Your task to perform on an android device: Search for sushi restaurants on Maps Image 0: 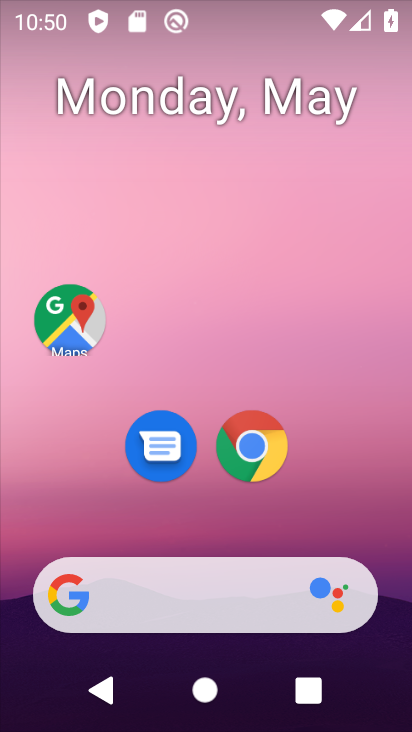
Step 0: drag from (349, 467) to (309, 3)
Your task to perform on an android device: Search for sushi restaurants on Maps Image 1: 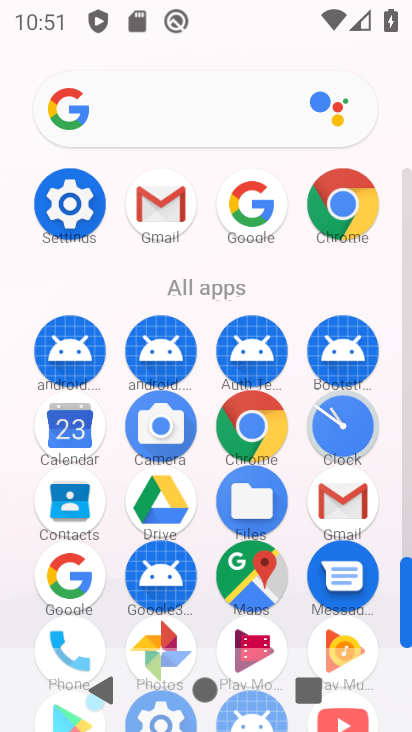
Step 1: click (242, 595)
Your task to perform on an android device: Search for sushi restaurants on Maps Image 2: 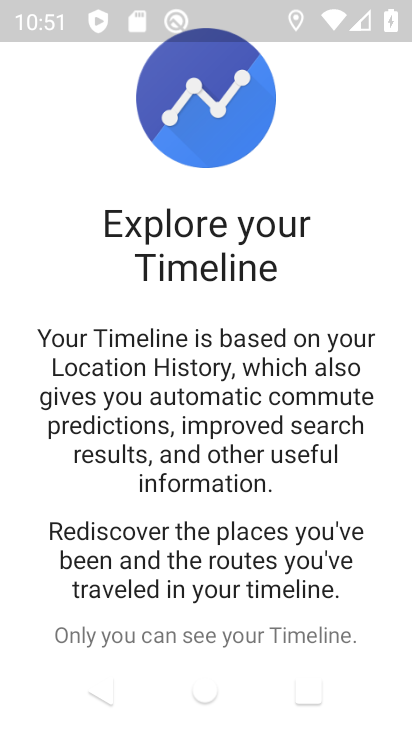
Step 2: drag from (302, 626) to (226, 165)
Your task to perform on an android device: Search for sushi restaurants on Maps Image 3: 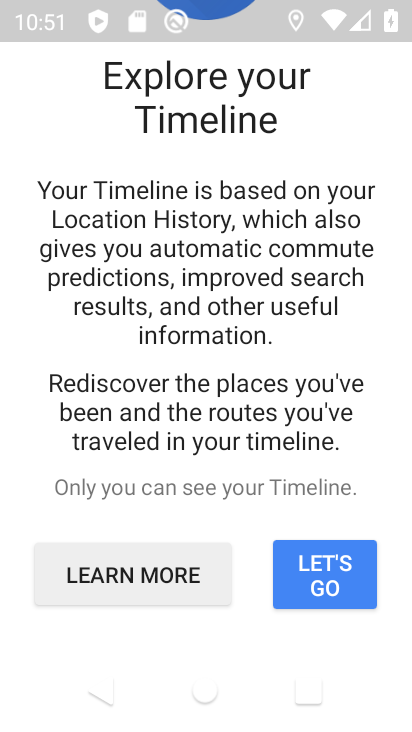
Step 3: drag from (229, 553) to (169, 164)
Your task to perform on an android device: Search for sushi restaurants on Maps Image 4: 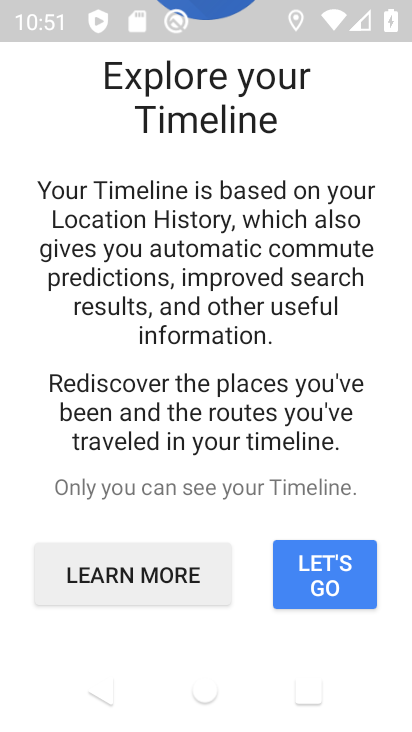
Step 4: drag from (244, 637) to (195, 216)
Your task to perform on an android device: Search for sushi restaurants on Maps Image 5: 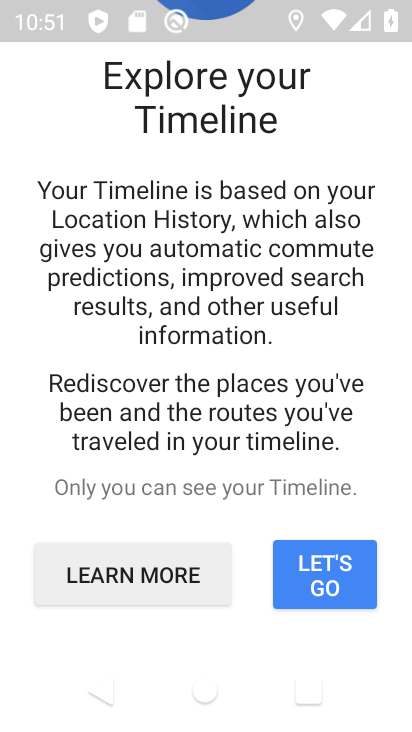
Step 5: press back button
Your task to perform on an android device: Search for sushi restaurants on Maps Image 6: 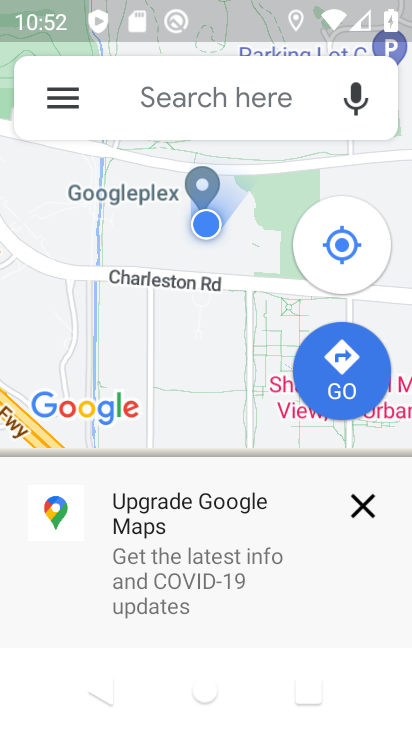
Step 6: click (165, 114)
Your task to perform on an android device: Search for sushi restaurants on Maps Image 7: 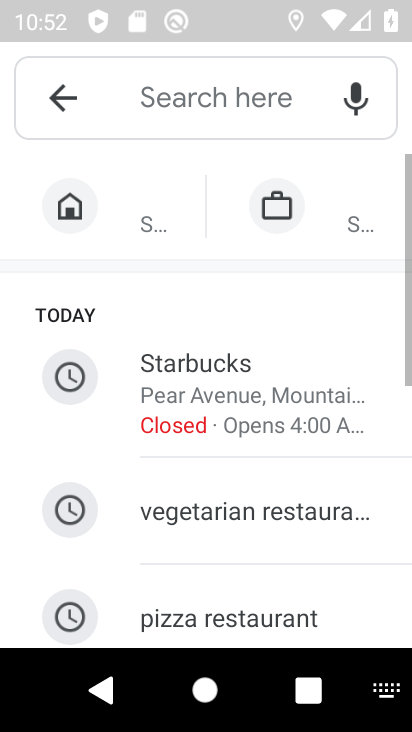
Step 7: drag from (243, 595) to (243, 163)
Your task to perform on an android device: Search for sushi restaurants on Maps Image 8: 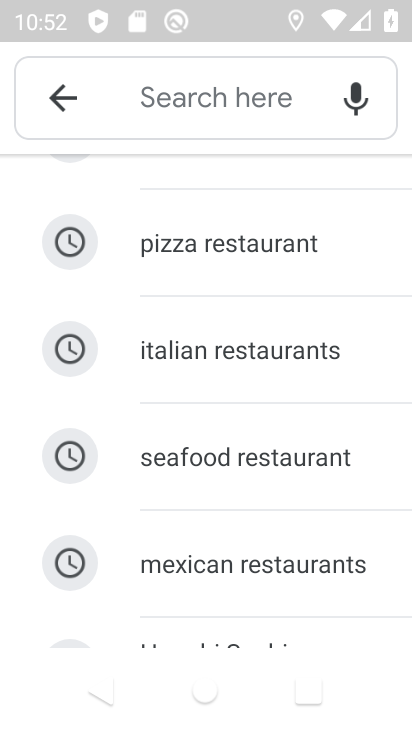
Step 8: drag from (235, 582) to (211, 198)
Your task to perform on an android device: Search for sushi restaurants on Maps Image 9: 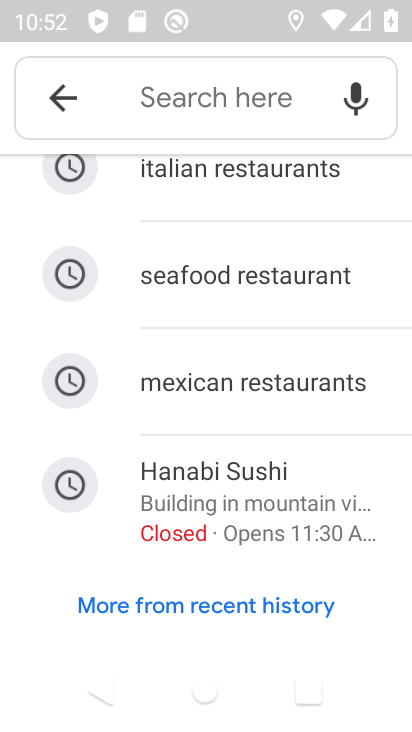
Step 9: drag from (241, 575) to (199, 197)
Your task to perform on an android device: Search for sushi restaurants on Maps Image 10: 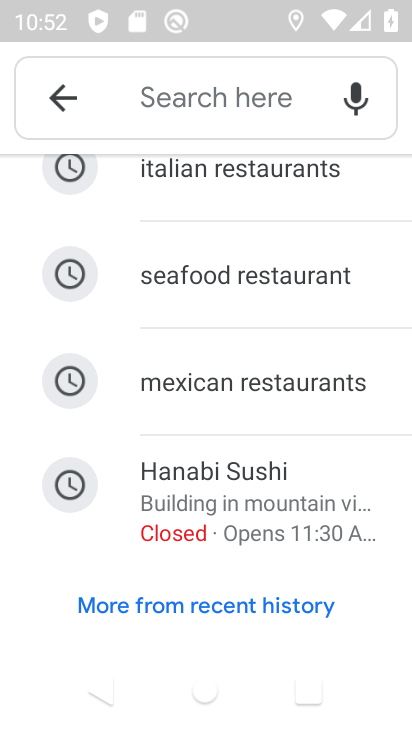
Step 10: click (138, 622)
Your task to perform on an android device: Search for sushi restaurants on Maps Image 11: 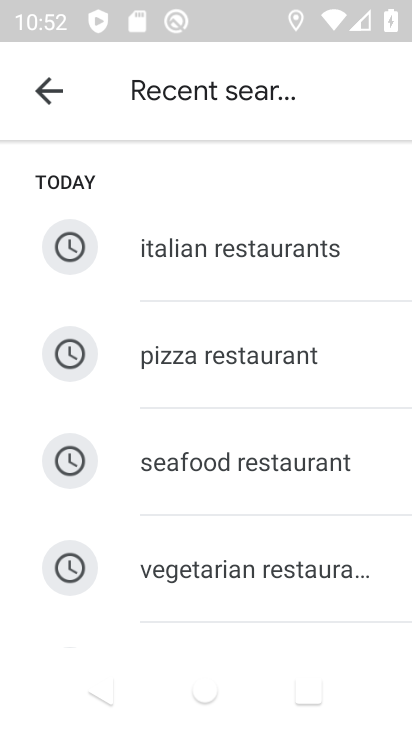
Step 11: drag from (149, 524) to (159, 264)
Your task to perform on an android device: Search for sushi restaurants on Maps Image 12: 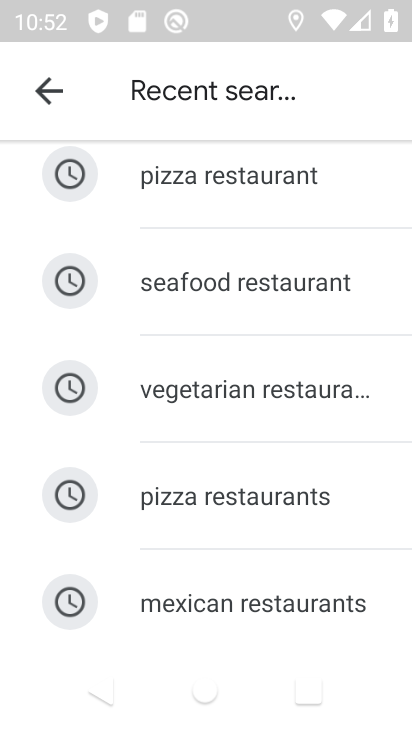
Step 12: drag from (216, 568) to (205, 255)
Your task to perform on an android device: Search for sushi restaurants on Maps Image 13: 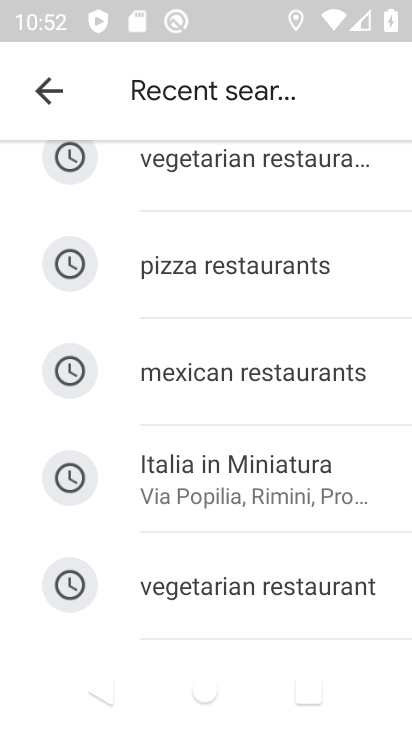
Step 13: drag from (256, 587) to (210, 266)
Your task to perform on an android device: Search for sushi restaurants on Maps Image 14: 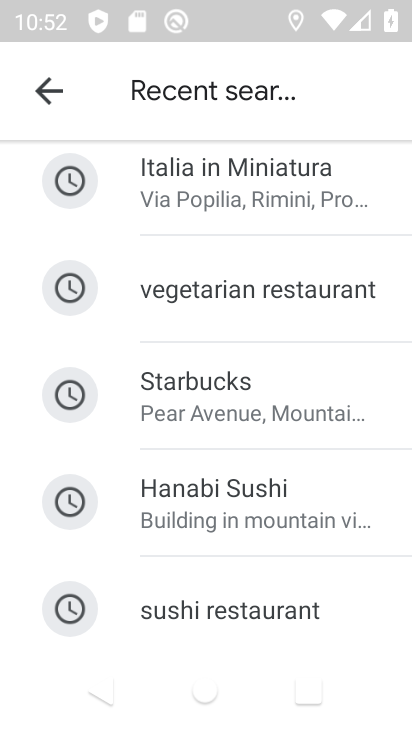
Step 14: click (194, 622)
Your task to perform on an android device: Search for sushi restaurants on Maps Image 15: 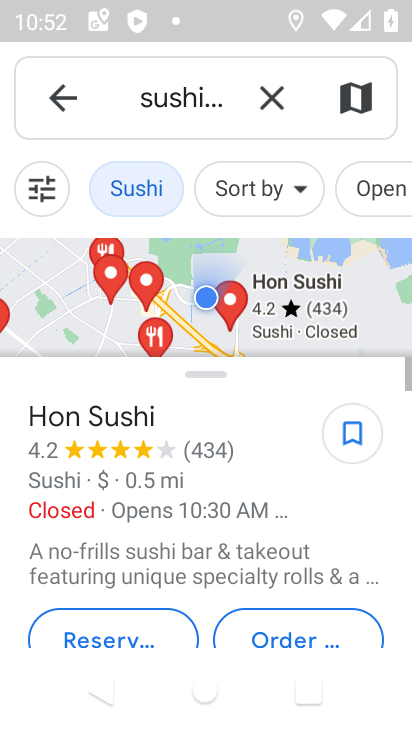
Step 15: task complete